Your task to perform on an android device: toggle location history Image 0: 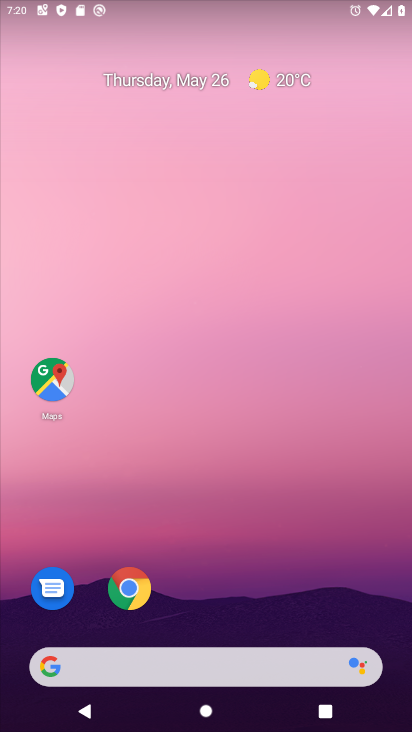
Step 0: drag from (366, 621) to (300, 82)
Your task to perform on an android device: toggle location history Image 1: 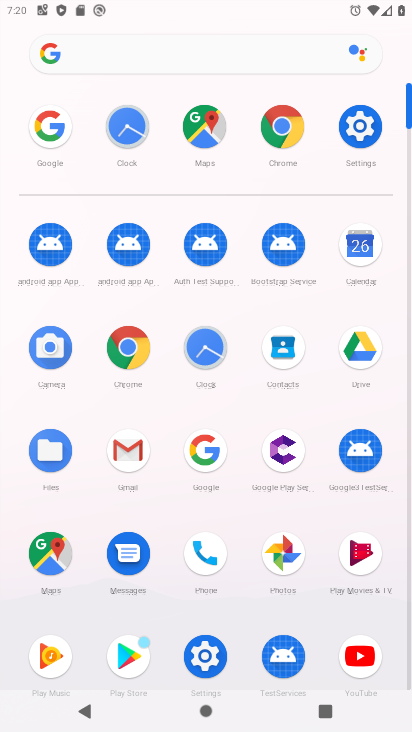
Step 1: click (351, 134)
Your task to perform on an android device: toggle location history Image 2: 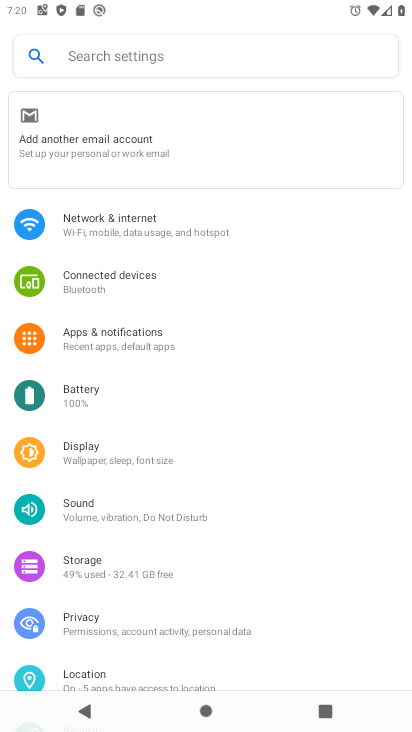
Step 2: click (167, 685)
Your task to perform on an android device: toggle location history Image 3: 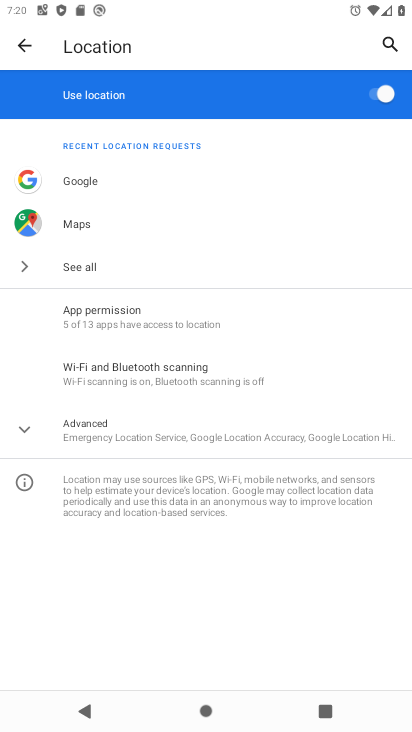
Step 3: click (212, 434)
Your task to perform on an android device: toggle location history Image 4: 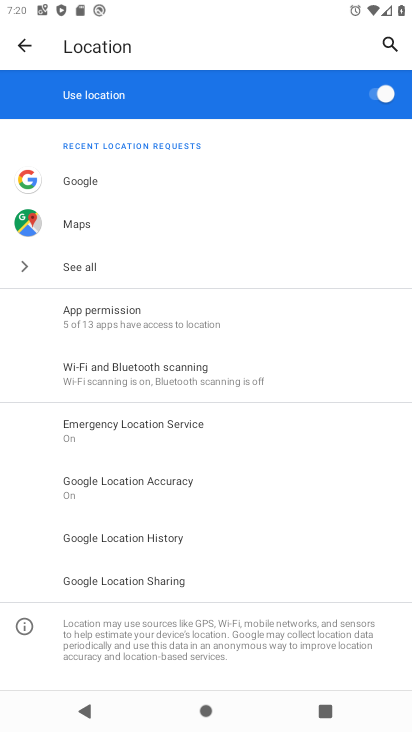
Step 4: click (158, 542)
Your task to perform on an android device: toggle location history Image 5: 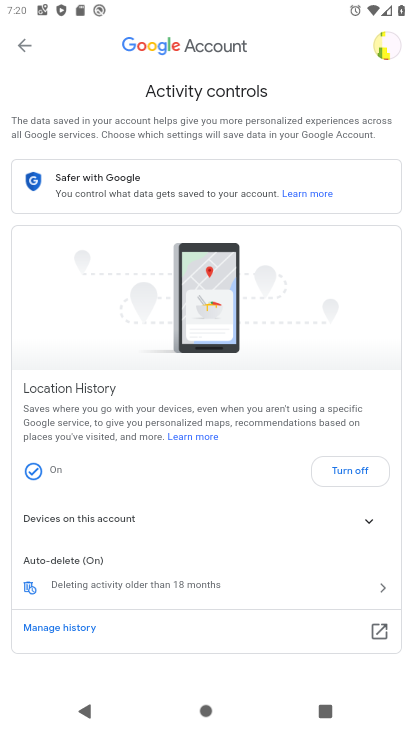
Step 5: click (324, 473)
Your task to perform on an android device: toggle location history Image 6: 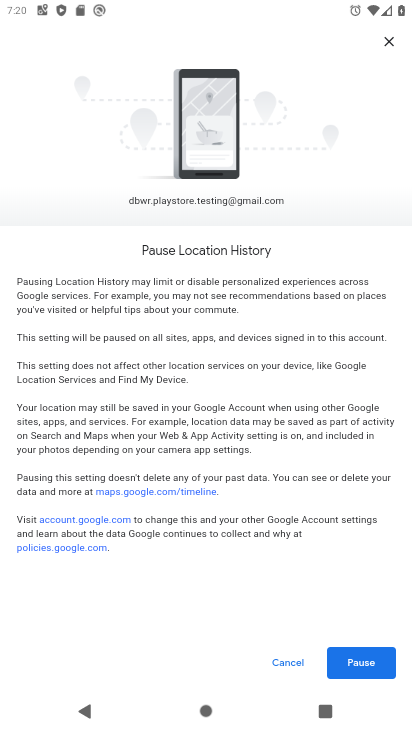
Step 6: task complete